Your task to perform on an android device: Go to accessibility settings Image 0: 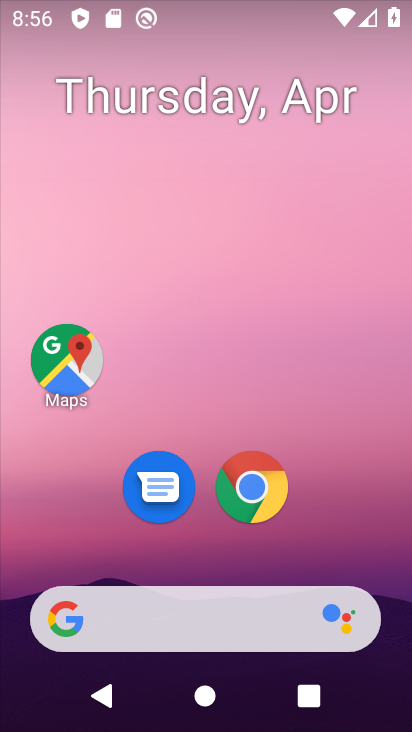
Step 0: drag from (365, 525) to (374, 162)
Your task to perform on an android device: Go to accessibility settings Image 1: 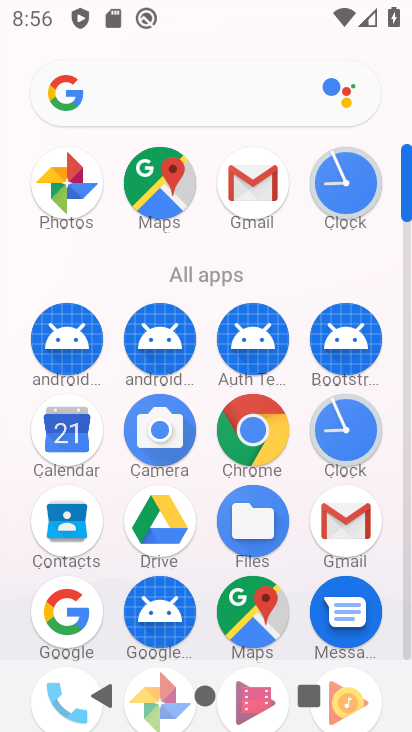
Step 1: drag from (213, 544) to (215, 228)
Your task to perform on an android device: Go to accessibility settings Image 2: 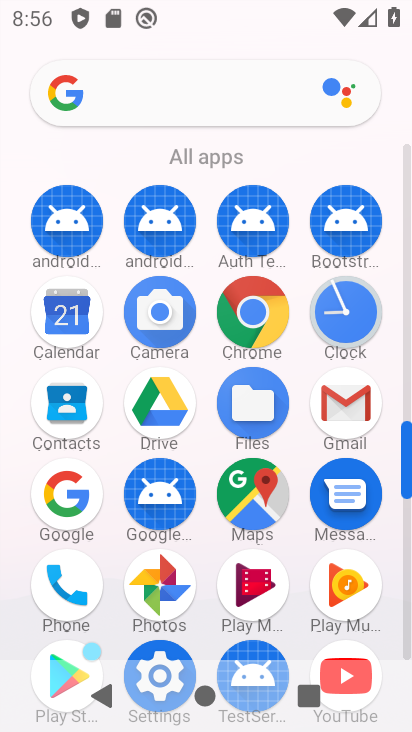
Step 2: drag from (208, 624) to (210, 321)
Your task to perform on an android device: Go to accessibility settings Image 3: 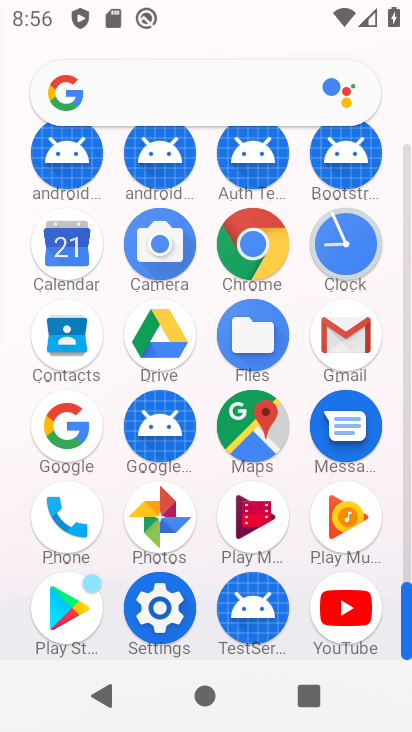
Step 3: click (168, 615)
Your task to perform on an android device: Go to accessibility settings Image 4: 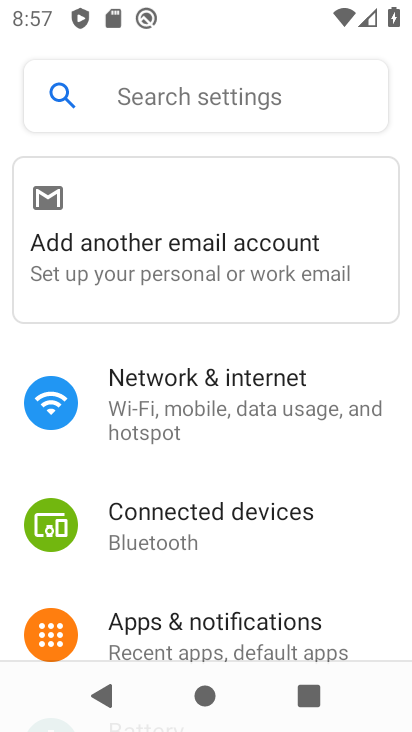
Step 4: drag from (282, 554) to (302, 199)
Your task to perform on an android device: Go to accessibility settings Image 5: 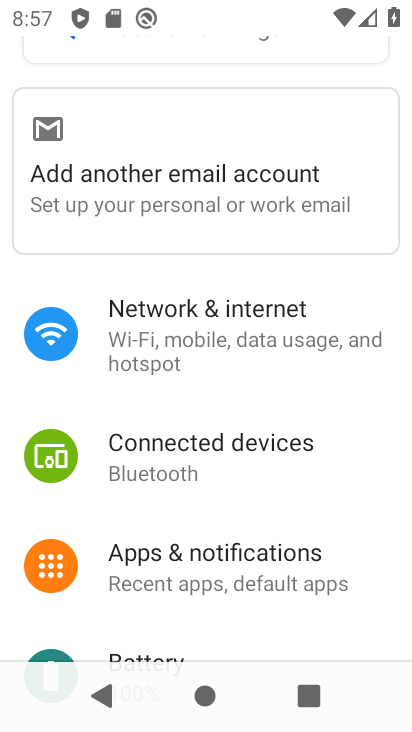
Step 5: drag from (285, 581) to (298, 223)
Your task to perform on an android device: Go to accessibility settings Image 6: 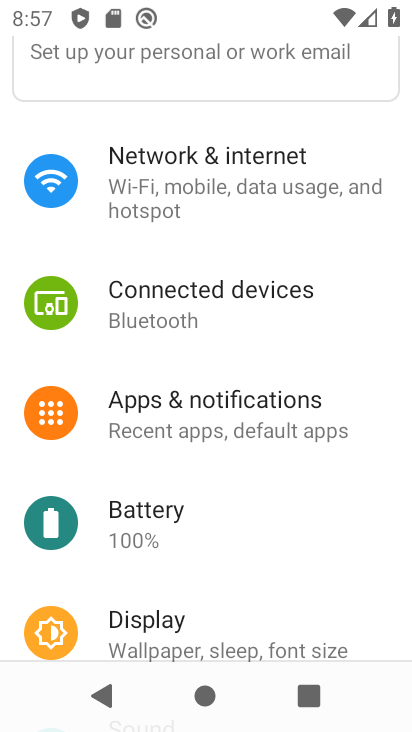
Step 6: drag from (292, 560) to (319, 253)
Your task to perform on an android device: Go to accessibility settings Image 7: 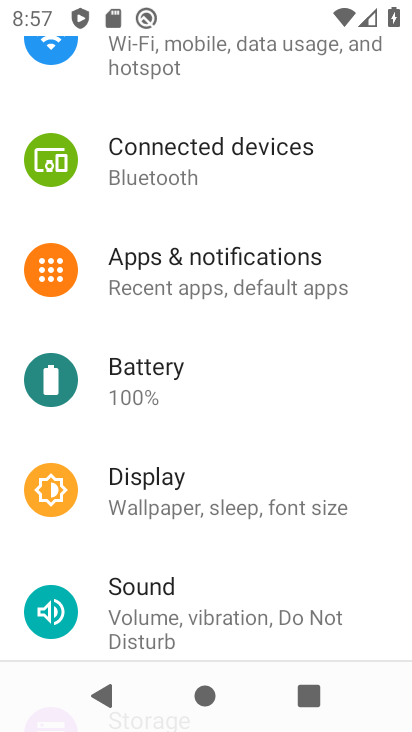
Step 7: drag from (320, 567) to (325, 190)
Your task to perform on an android device: Go to accessibility settings Image 8: 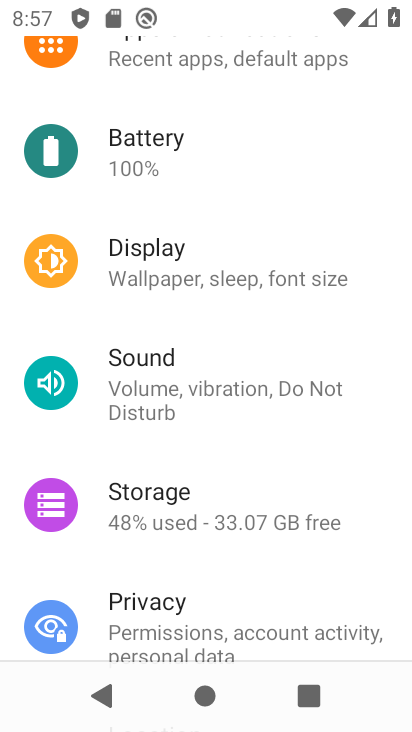
Step 8: drag from (304, 552) to (320, 264)
Your task to perform on an android device: Go to accessibility settings Image 9: 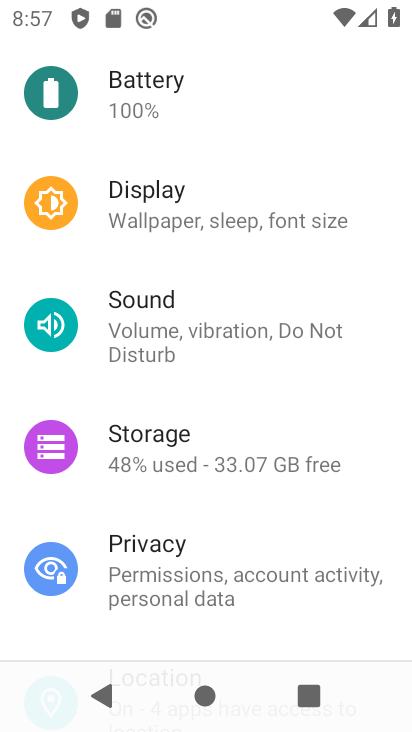
Step 9: drag from (280, 570) to (287, 263)
Your task to perform on an android device: Go to accessibility settings Image 10: 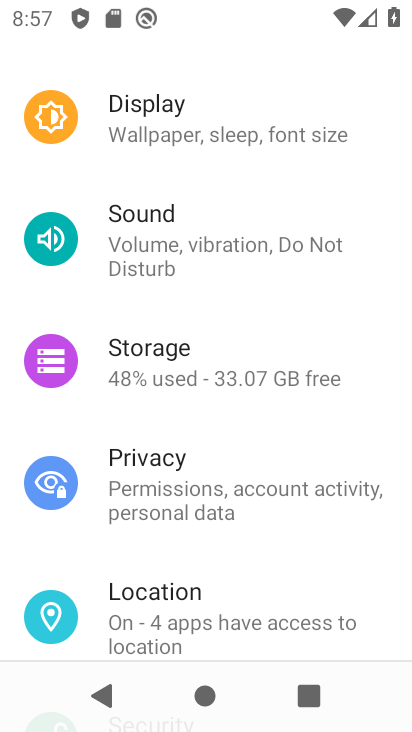
Step 10: drag from (268, 506) to (309, 168)
Your task to perform on an android device: Go to accessibility settings Image 11: 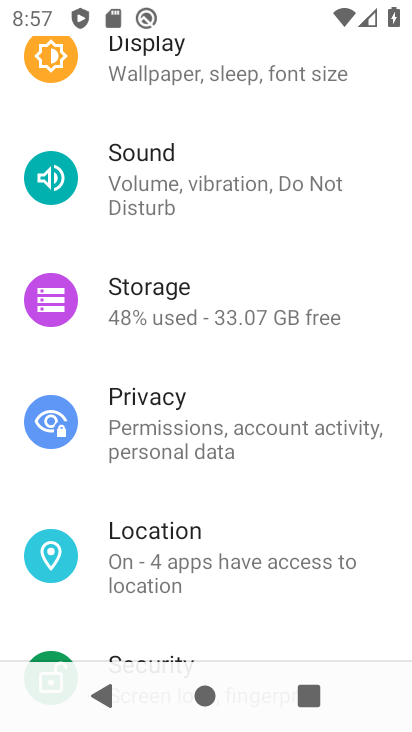
Step 11: drag from (246, 558) to (278, 225)
Your task to perform on an android device: Go to accessibility settings Image 12: 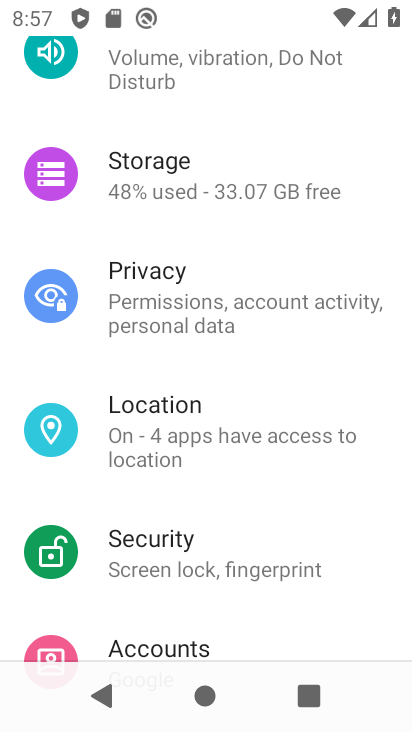
Step 12: drag from (229, 531) to (256, 239)
Your task to perform on an android device: Go to accessibility settings Image 13: 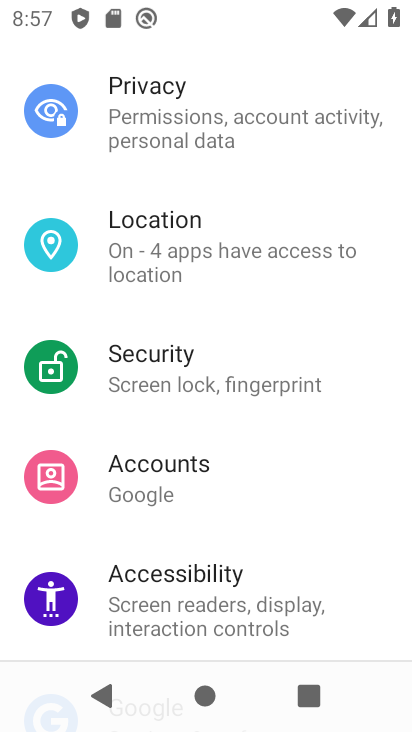
Step 13: click (223, 574)
Your task to perform on an android device: Go to accessibility settings Image 14: 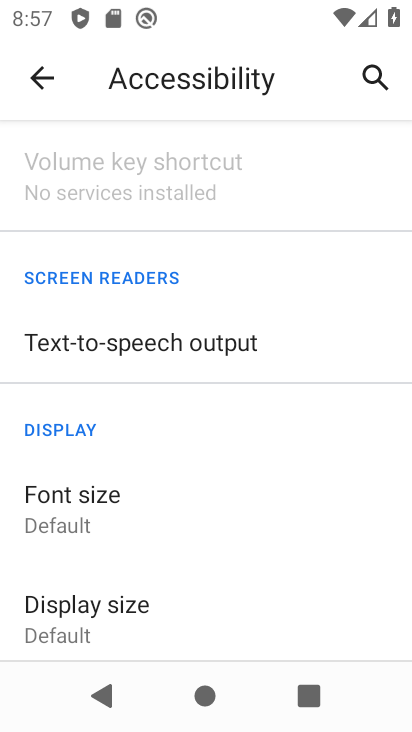
Step 14: task complete